Your task to perform on an android device: Do I have any events tomorrow? Image 0: 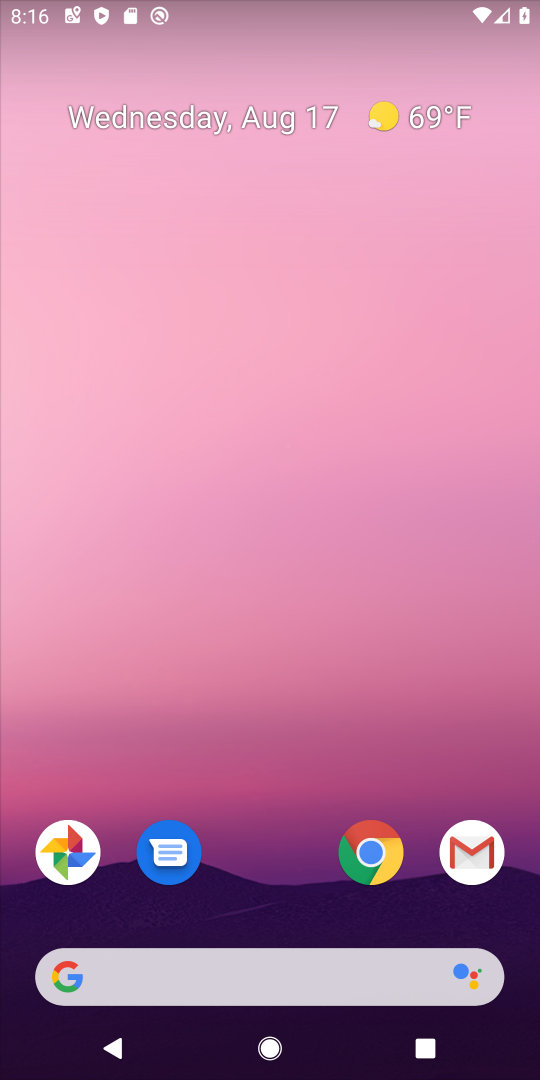
Step 0: press home button
Your task to perform on an android device: Do I have any events tomorrow? Image 1: 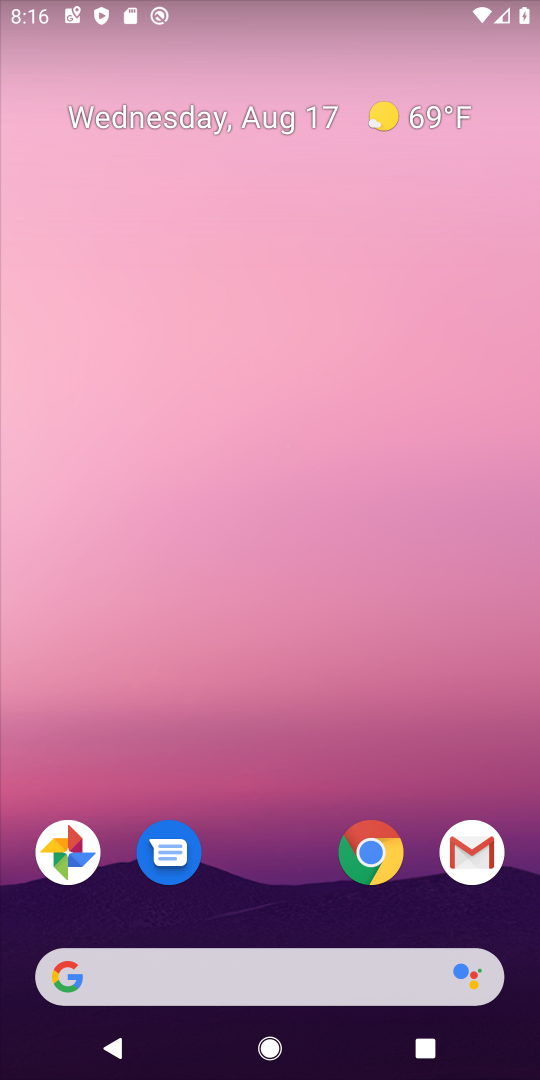
Step 1: drag from (265, 892) to (183, 387)
Your task to perform on an android device: Do I have any events tomorrow? Image 2: 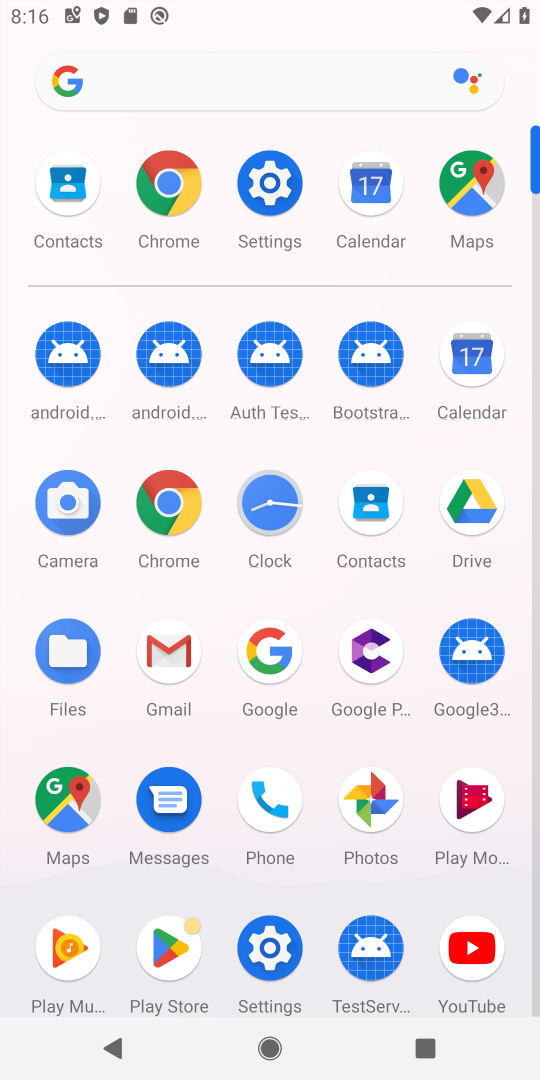
Step 2: click (467, 360)
Your task to perform on an android device: Do I have any events tomorrow? Image 3: 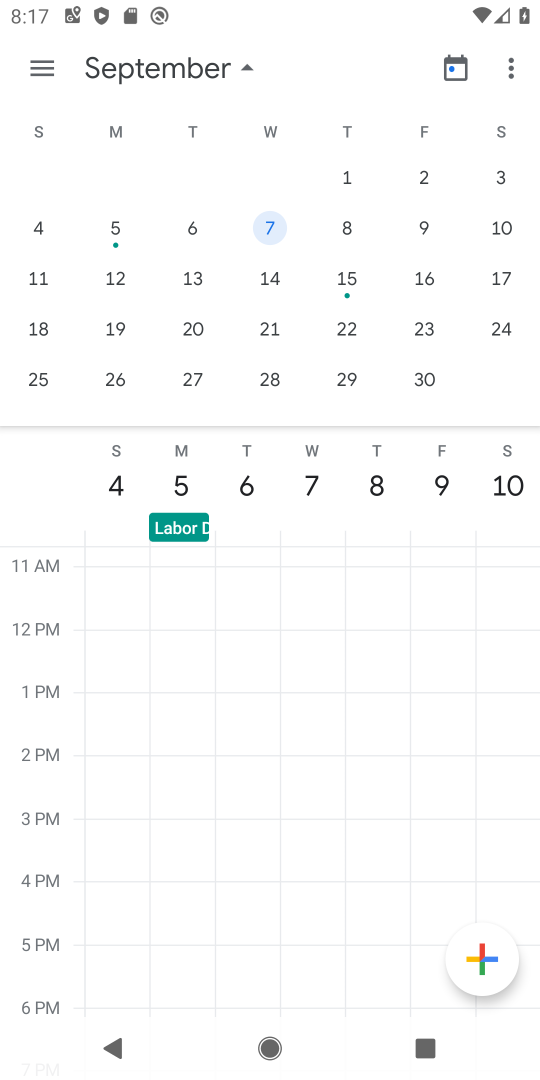
Step 3: drag from (48, 277) to (398, 327)
Your task to perform on an android device: Do I have any events tomorrow? Image 4: 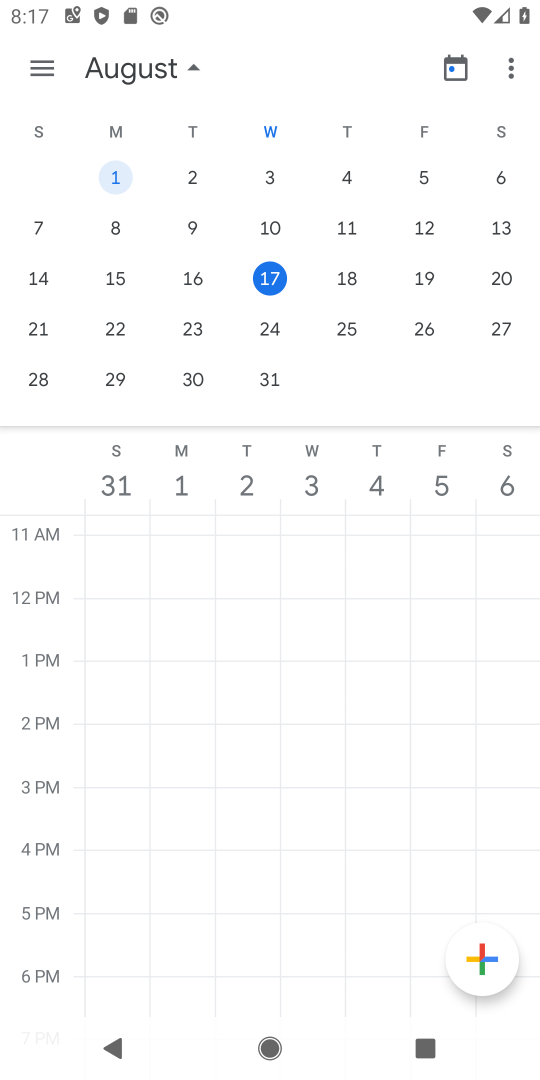
Step 4: click (46, 56)
Your task to perform on an android device: Do I have any events tomorrow? Image 5: 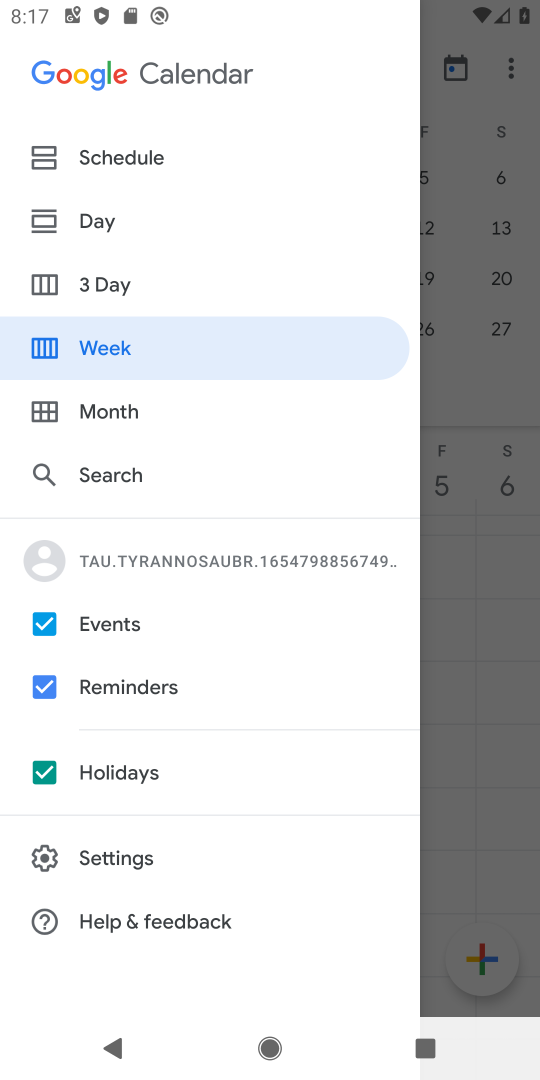
Step 5: click (87, 224)
Your task to perform on an android device: Do I have any events tomorrow? Image 6: 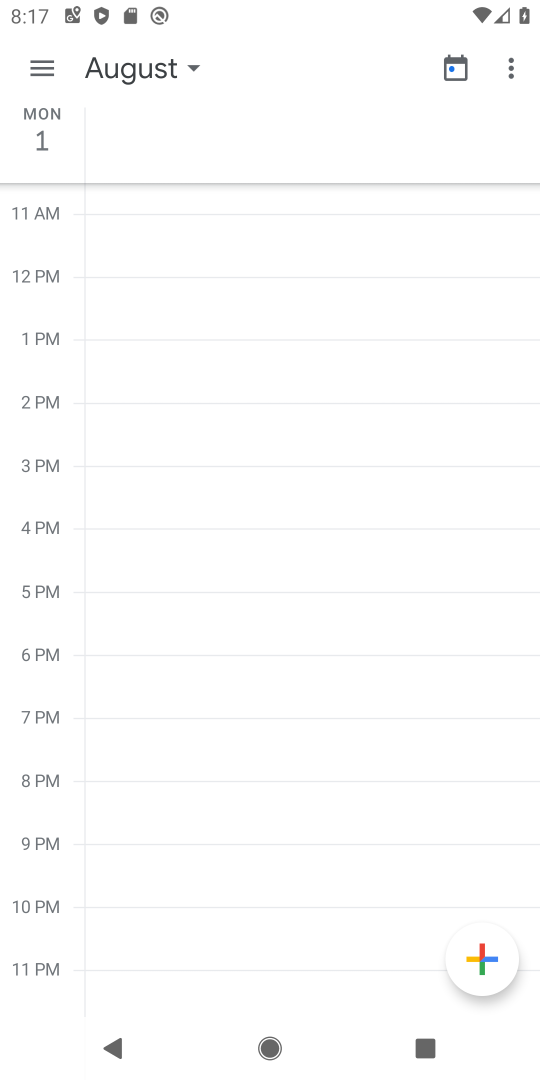
Step 6: click (193, 64)
Your task to perform on an android device: Do I have any events tomorrow? Image 7: 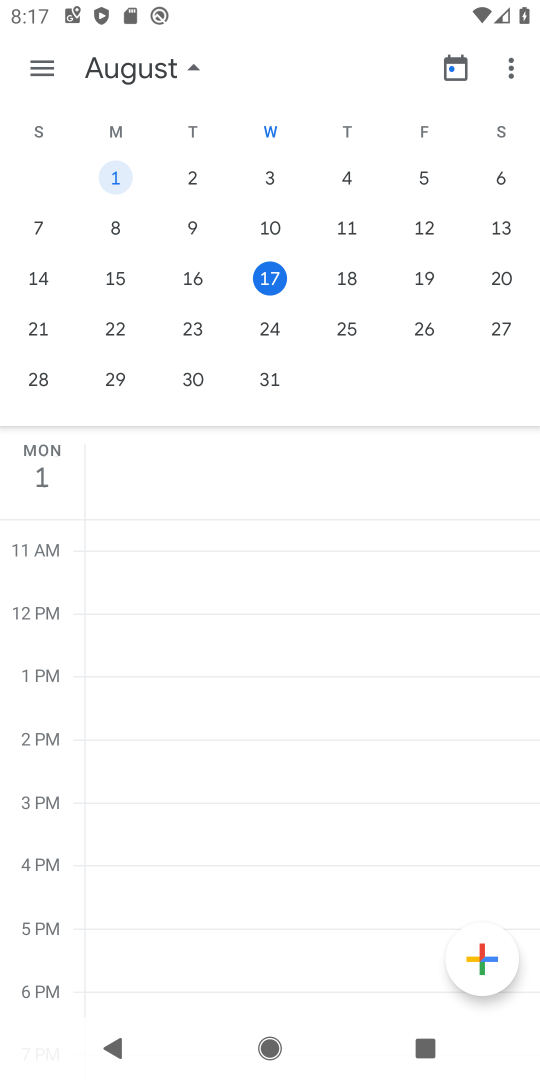
Step 7: click (351, 278)
Your task to perform on an android device: Do I have any events tomorrow? Image 8: 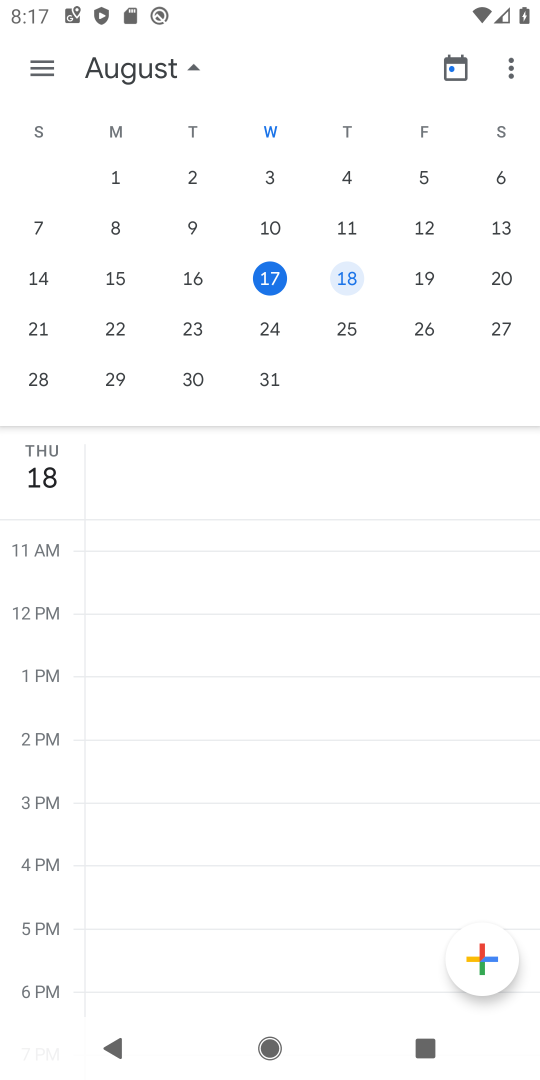
Step 8: task complete